Your task to perform on an android device: Open notification settings Image 0: 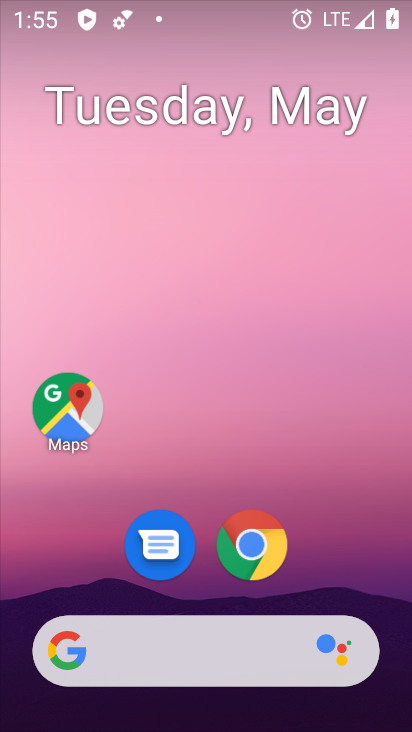
Step 0: drag from (323, 475) to (234, 50)
Your task to perform on an android device: Open notification settings Image 1: 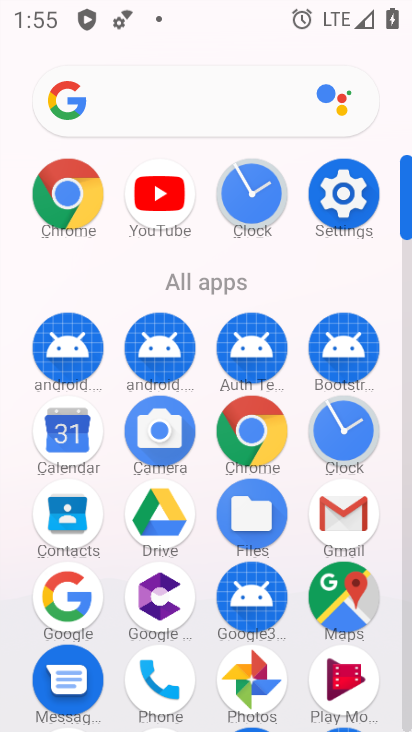
Step 1: drag from (18, 563) to (10, 246)
Your task to perform on an android device: Open notification settings Image 2: 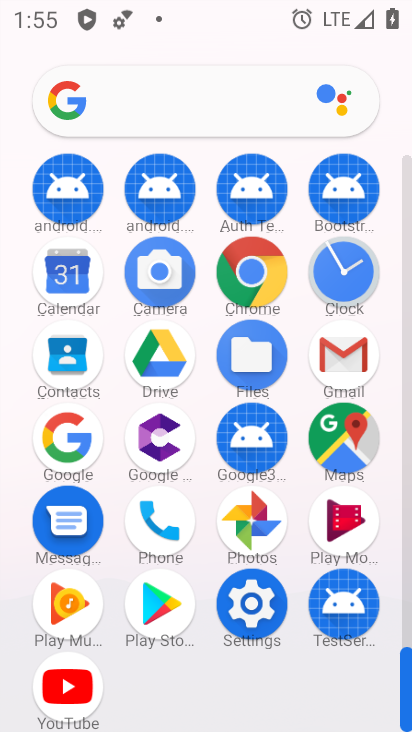
Step 2: click (248, 600)
Your task to perform on an android device: Open notification settings Image 3: 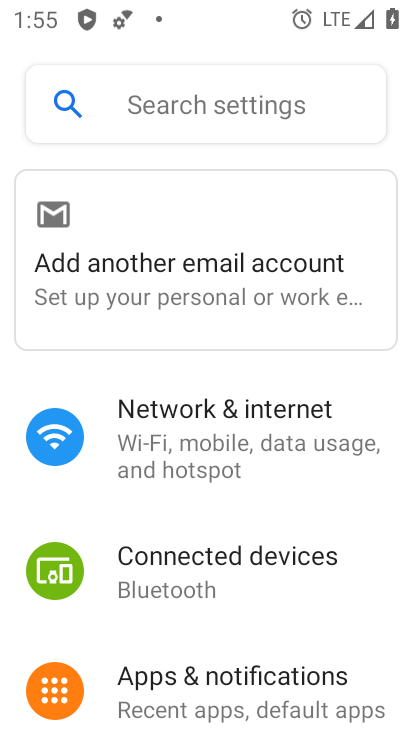
Step 3: drag from (361, 654) to (341, 301)
Your task to perform on an android device: Open notification settings Image 4: 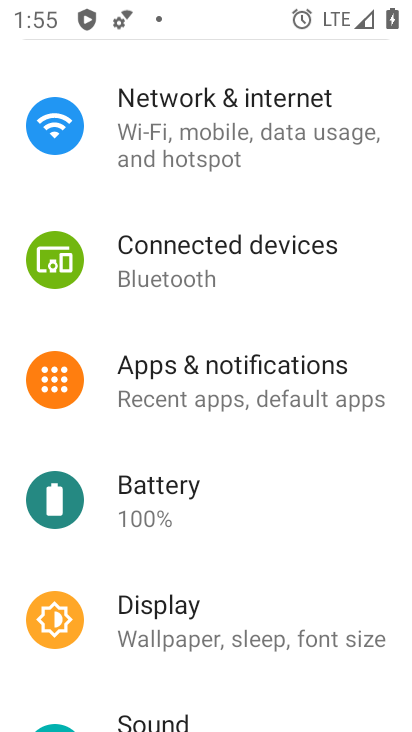
Step 4: click (177, 378)
Your task to perform on an android device: Open notification settings Image 5: 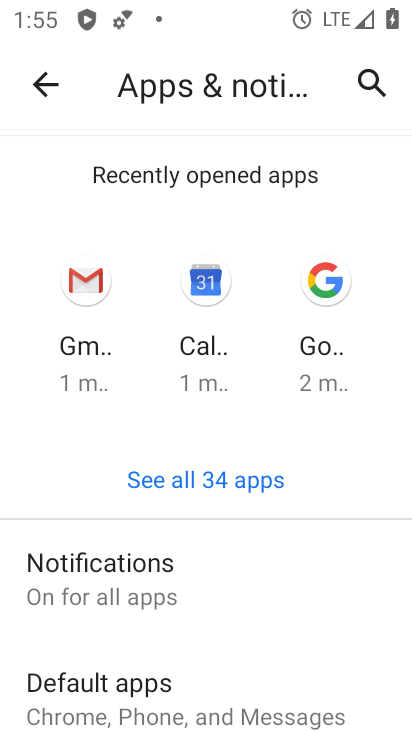
Step 5: drag from (319, 656) to (314, 234)
Your task to perform on an android device: Open notification settings Image 6: 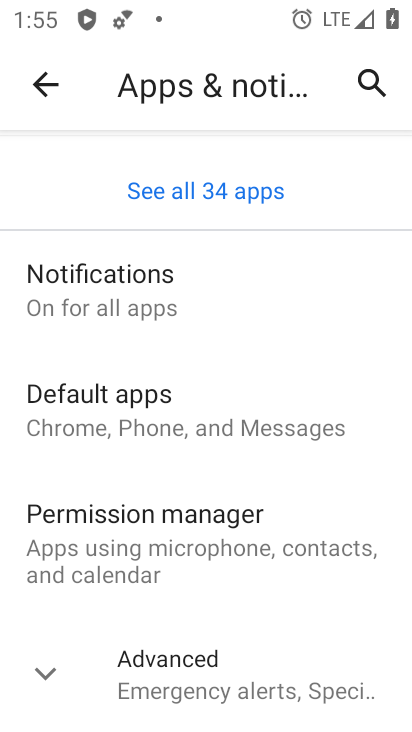
Step 6: click (54, 678)
Your task to perform on an android device: Open notification settings Image 7: 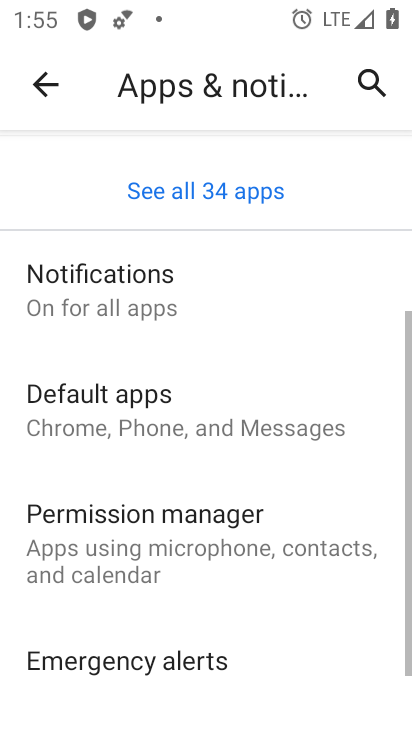
Step 7: drag from (298, 600) to (301, 313)
Your task to perform on an android device: Open notification settings Image 8: 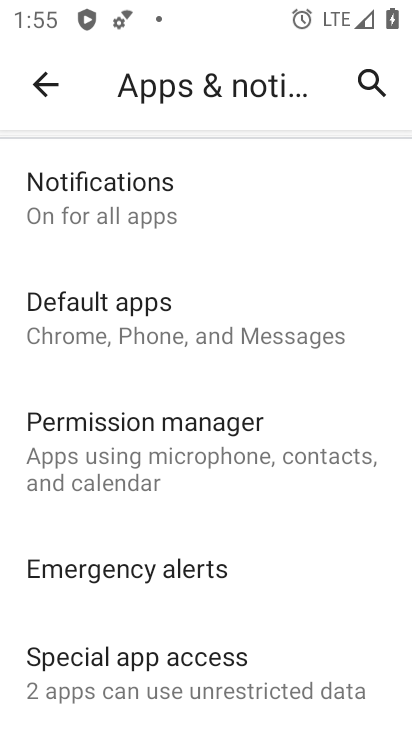
Step 8: click (180, 199)
Your task to perform on an android device: Open notification settings Image 9: 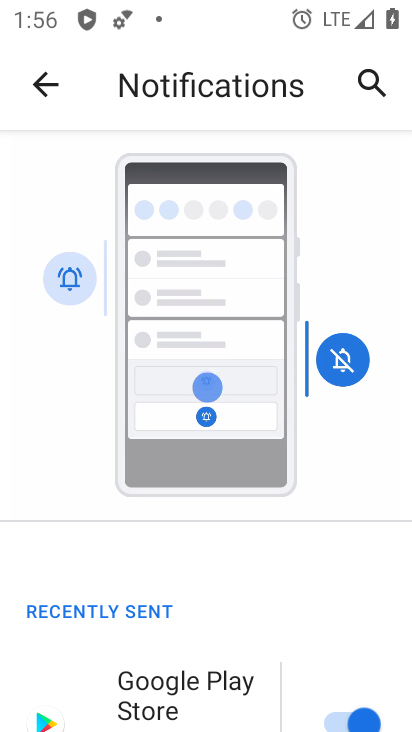
Step 9: drag from (189, 593) to (222, 100)
Your task to perform on an android device: Open notification settings Image 10: 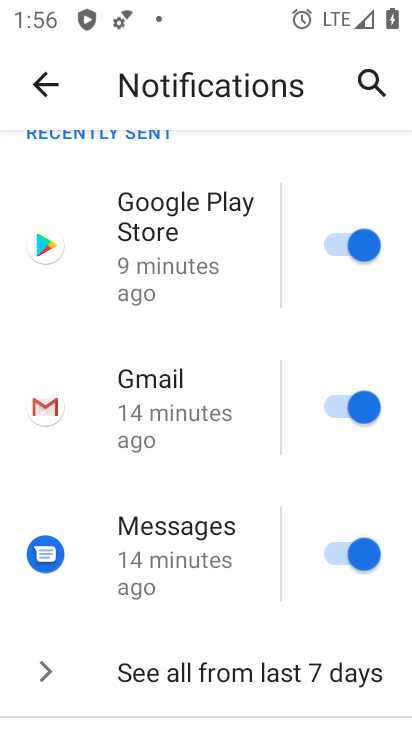
Step 10: drag from (196, 590) to (196, 166)
Your task to perform on an android device: Open notification settings Image 11: 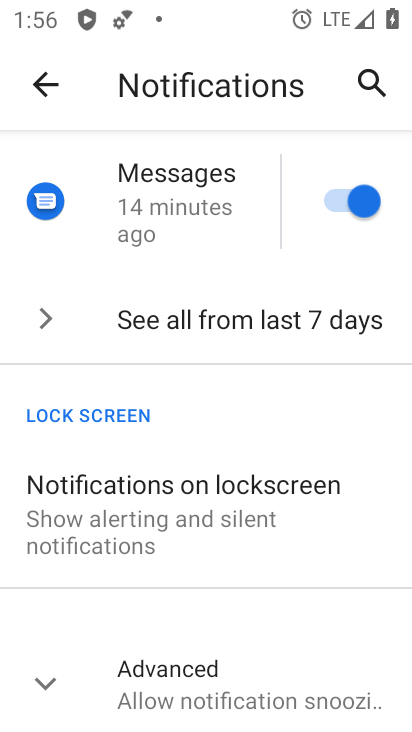
Step 11: drag from (210, 637) to (207, 177)
Your task to perform on an android device: Open notification settings Image 12: 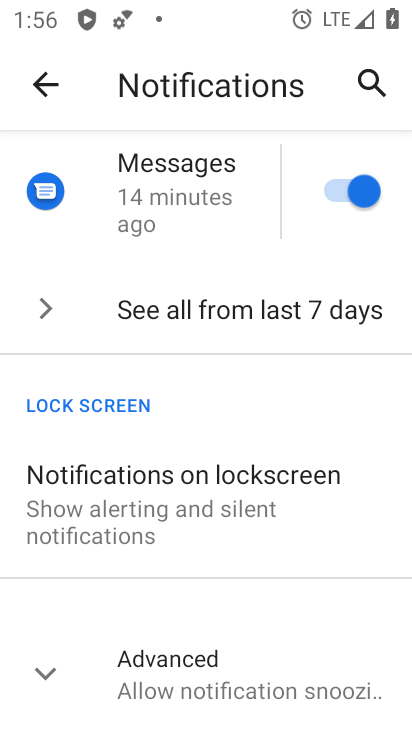
Step 12: drag from (207, 599) to (207, 218)
Your task to perform on an android device: Open notification settings Image 13: 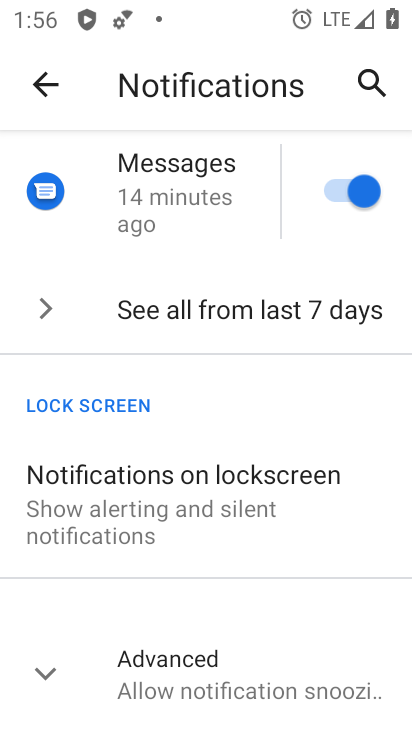
Step 13: click (49, 679)
Your task to perform on an android device: Open notification settings Image 14: 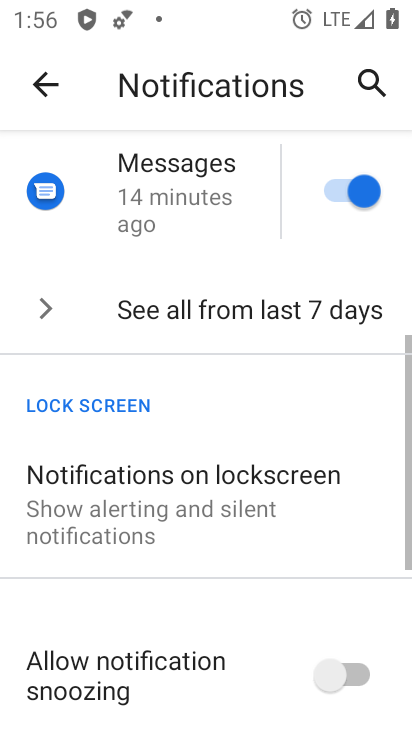
Step 14: task complete